Your task to perform on an android device: turn on the 24-hour format for clock Image 0: 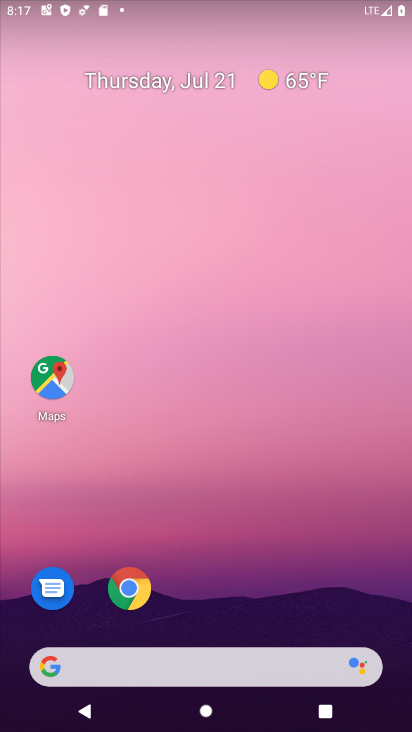
Step 0: drag from (254, 656) to (226, 29)
Your task to perform on an android device: turn on the 24-hour format for clock Image 1: 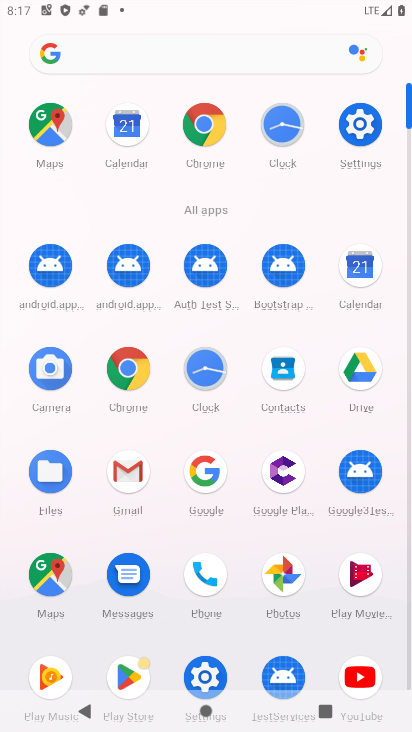
Step 1: click (283, 135)
Your task to perform on an android device: turn on the 24-hour format for clock Image 2: 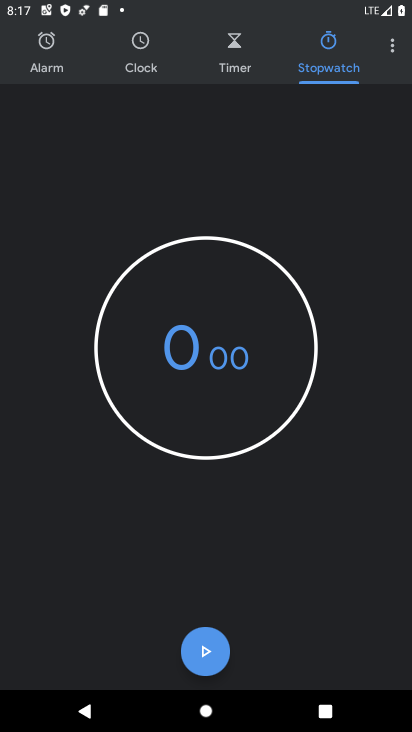
Step 2: drag from (391, 47) to (291, 84)
Your task to perform on an android device: turn on the 24-hour format for clock Image 3: 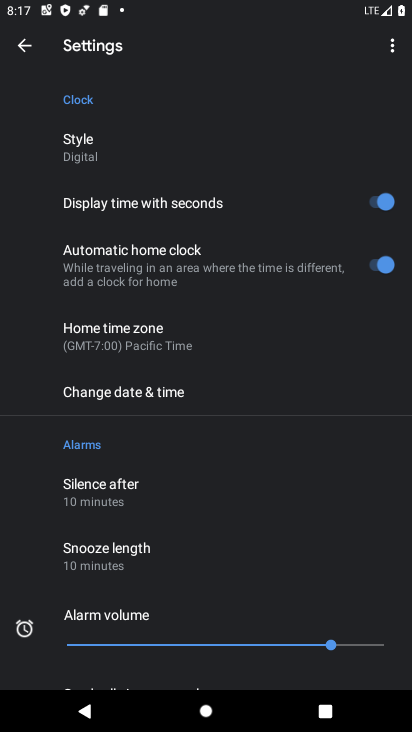
Step 3: click (127, 405)
Your task to perform on an android device: turn on the 24-hour format for clock Image 4: 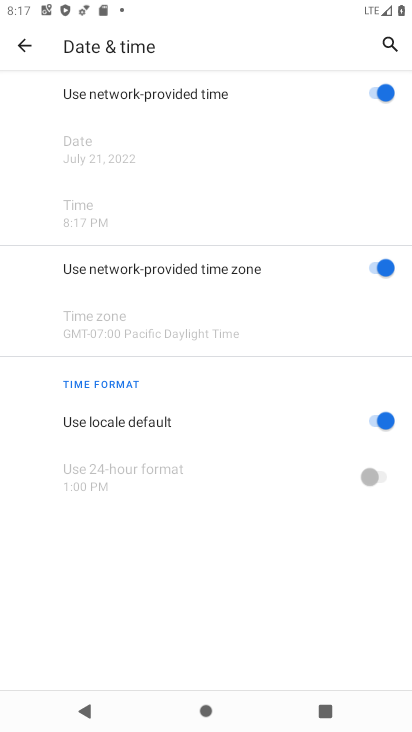
Step 4: click (386, 419)
Your task to perform on an android device: turn on the 24-hour format for clock Image 5: 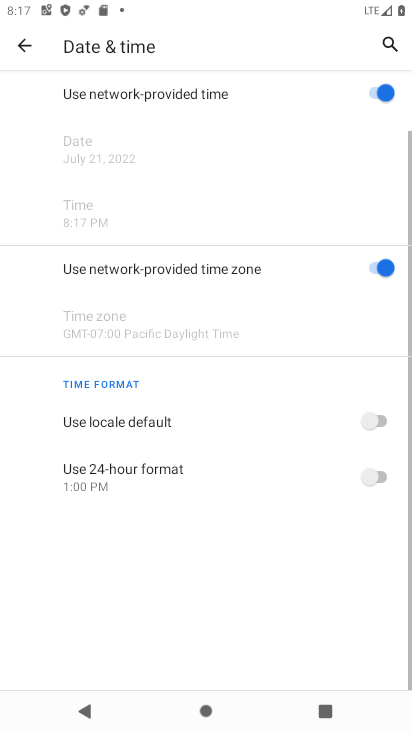
Step 5: click (378, 481)
Your task to perform on an android device: turn on the 24-hour format for clock Image 6: 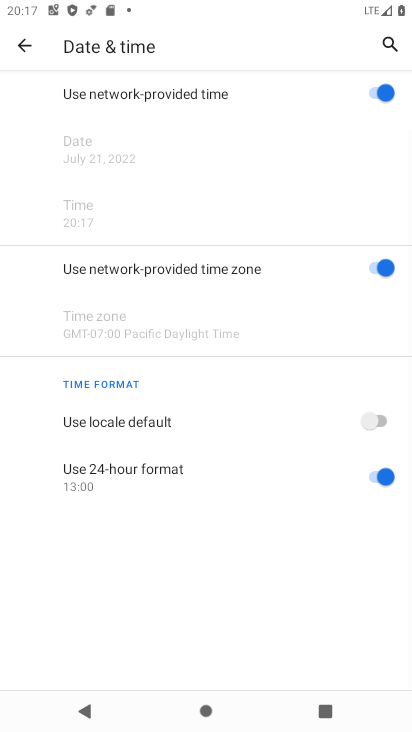
Step 6: task complete